Your task to perform on an android device: Go to privacy settings Image 0: 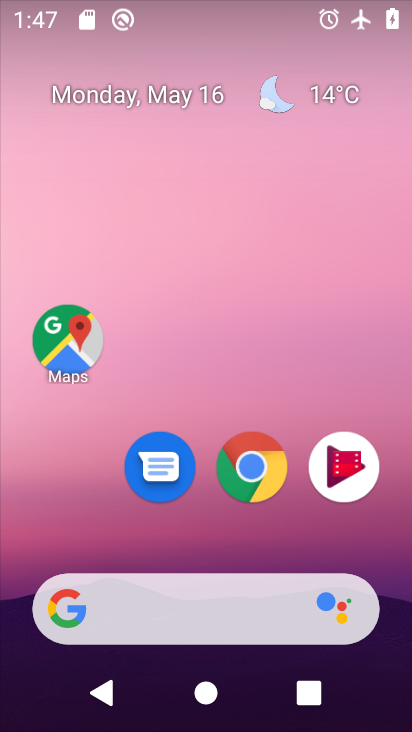
Step 0: drag from (246, 553) to (283, 192)
Your task to perform on an android device: Go to privacy settings Image 1: 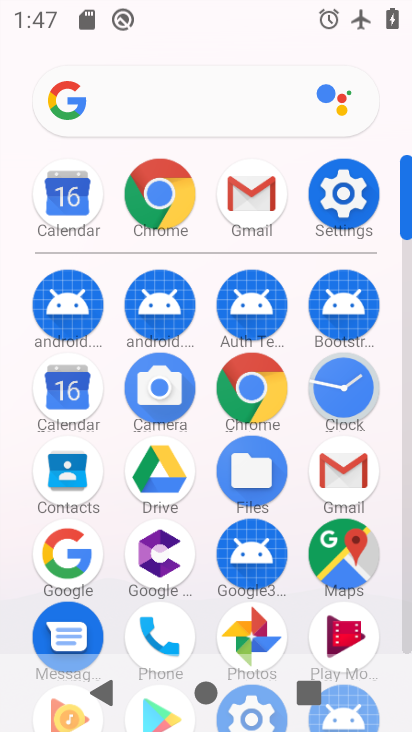
Step 1: drag from (194, 519) to (219, 290)
Your task to perform on an android device: Go to privacy settings Image 2: 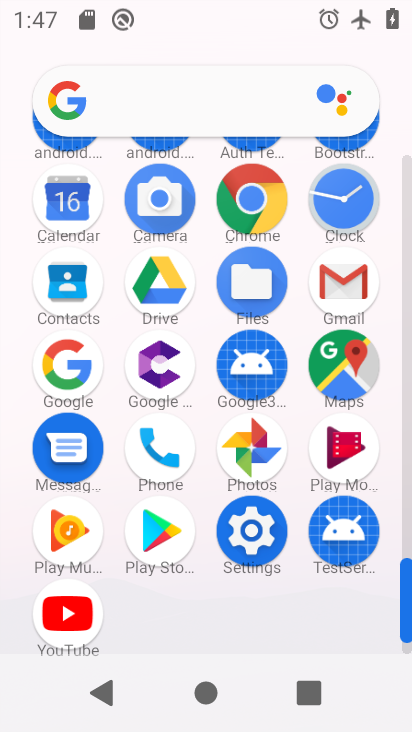
Step 2: click (245, 544)
Your task to perform on an android device: Go to privacy settings Image 3: 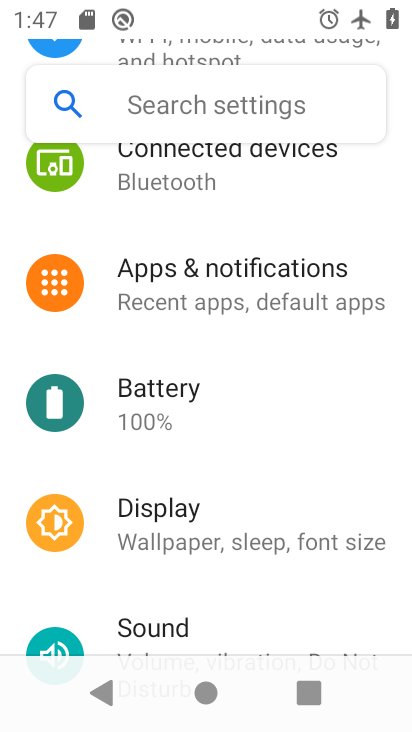
Step 3: drag from (211, 544) to (292, 138)
Your task to perform on an android device: Go to privacy settings Image 4: 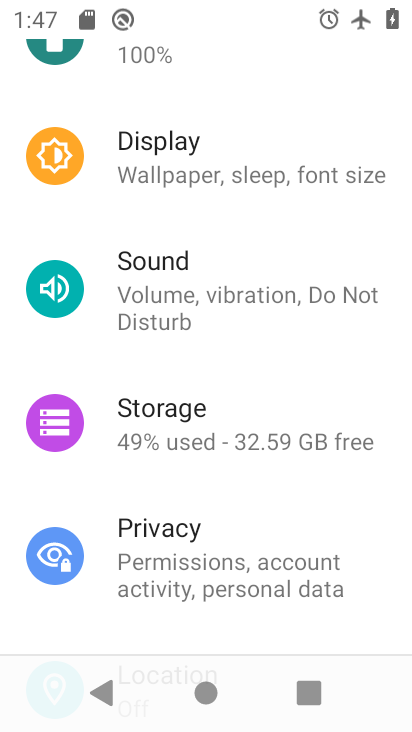
Step 4: drag from (270, 383) to (315, 147)
Your task to perform on an android device: Go to privacy settings Image 5: 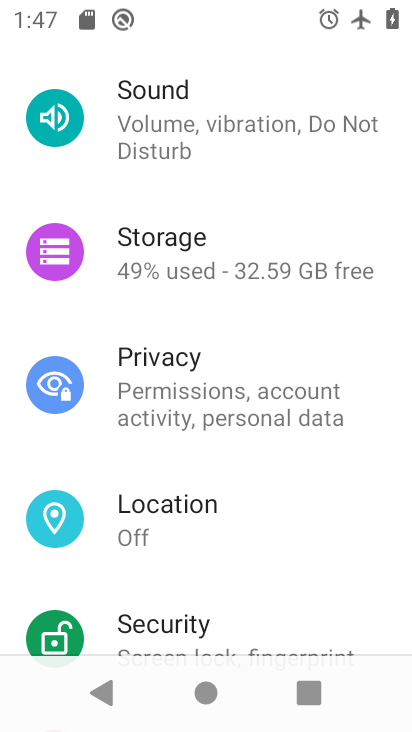
Step 5: click (234, 385)
Your task to perform on an android device: Go to privacy settings Image 6: 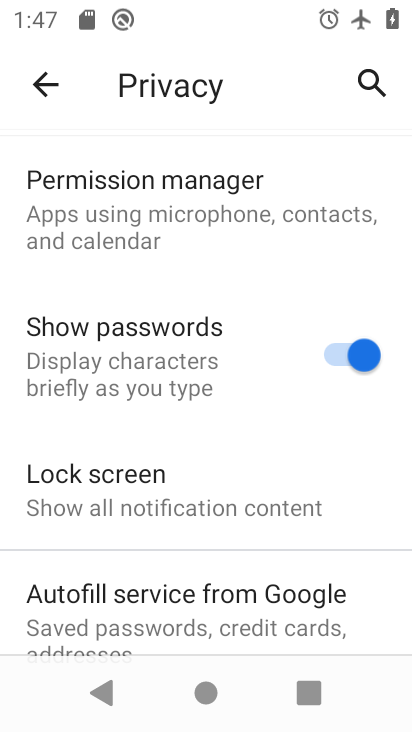
Step 6: task complete